Your task to perform on an android device: change timer sound Image 0: 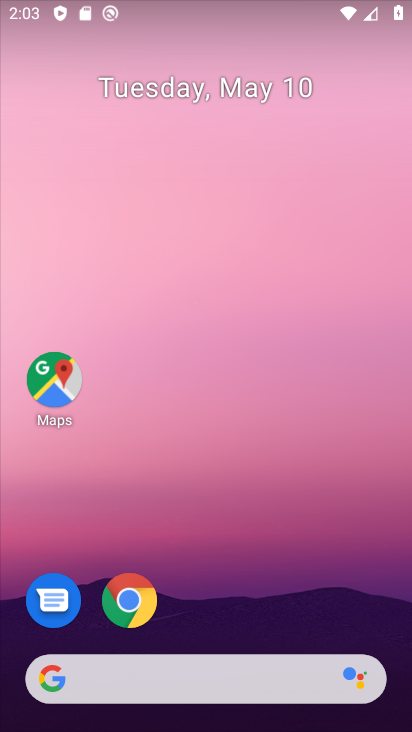
Step 0: click (226, 169)
Your task to perform on an android device: change timer sound Image 1: 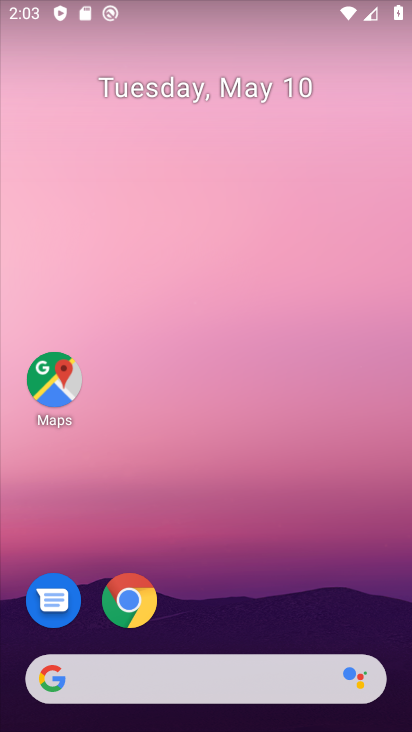
Step 1: drag from (241, 571) to (189, 114)
Your task to perform on an android device: change timer sound Image 2: 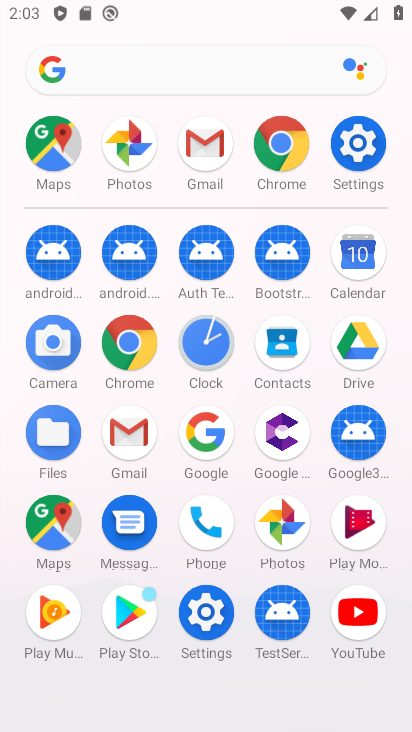
Step 2: click (364, 149)
Your task to perform on an android device: change timer sound Image 3: 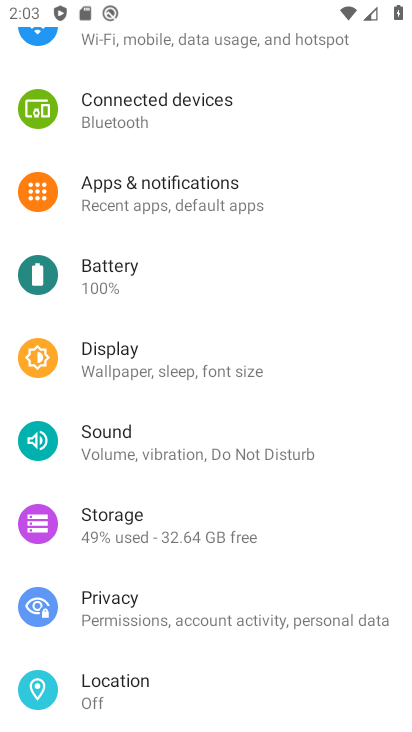
Step 3: press home button
Your task to perform on an android device: change timer sound Image 4: 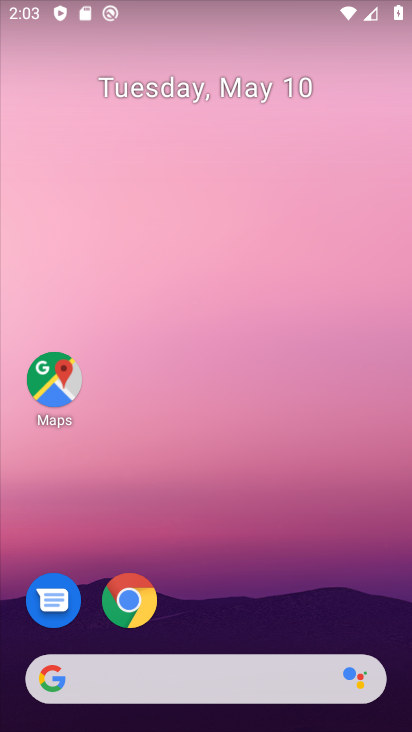
Step 4: drag from (252, 581) to (285, 253)
Your task to perform on an android device: change timer sound Image 5: 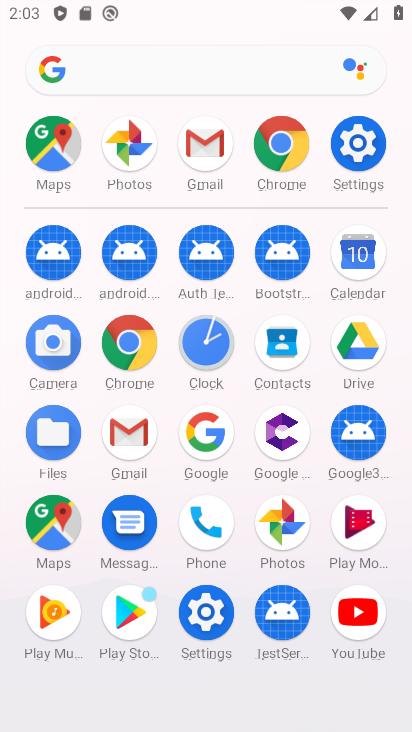
Step 5: click (205, 345)
Your task to perform on an android device: change timer sound Image 6: 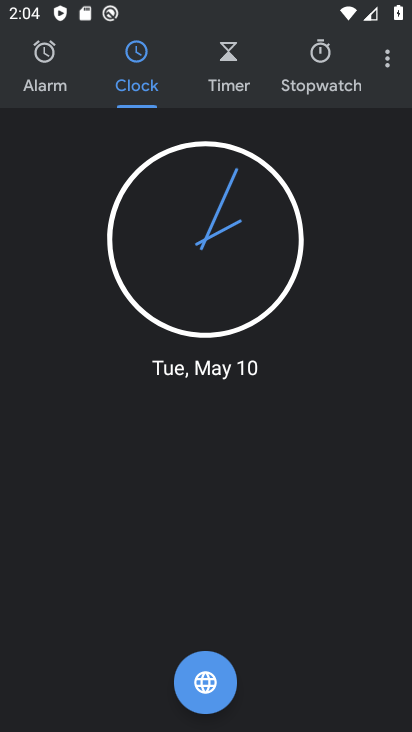
Step 6: click (381, 64)
Your task to perform on an android device: change timer sound Image 7: 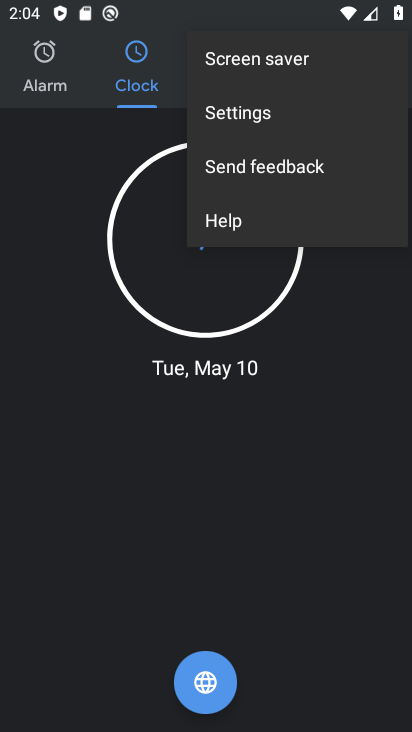
Step 7: click (262, 114)
Your task to perform on an android device: change timer sound Image 8: 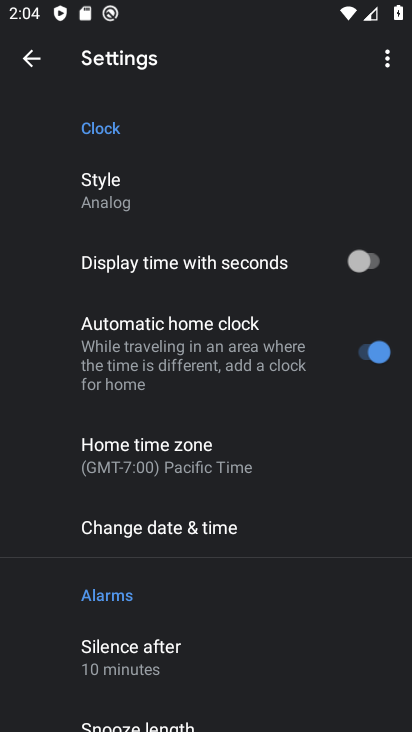
Step 8: drag from (249, 559) to (241, 224)
Your task to perform on an android device: change timer sound Image 9: 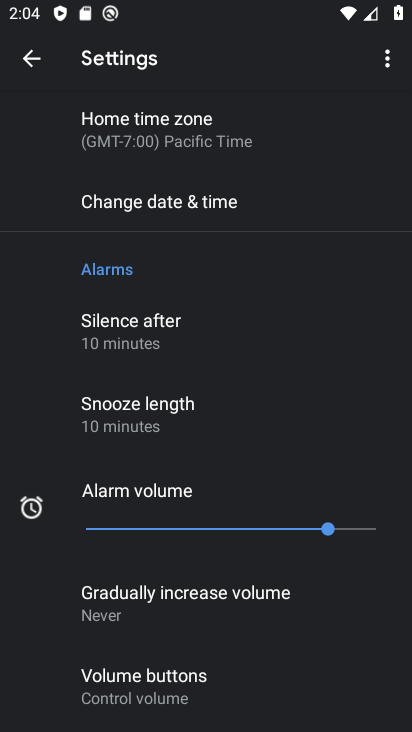
Step 9: drag from (187, 596) to (190, 345)
Your task to perform on an android device: change timer sound Image 10: 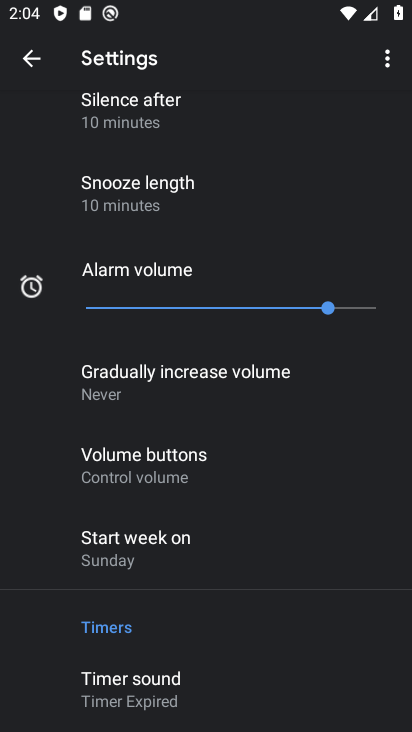
Step 10: drag from (180, 518) to (181, 326)
Your task to perform on an android device: change timer sound Image 11: 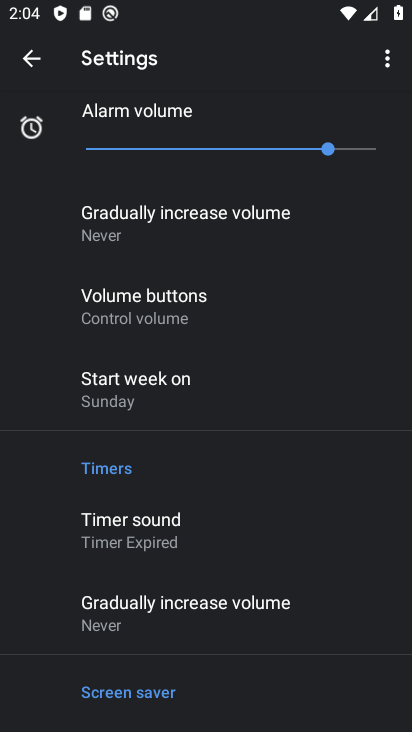
Step 11: click (141, 527)
Your task to perform on an android device: change timer sound Image 12: 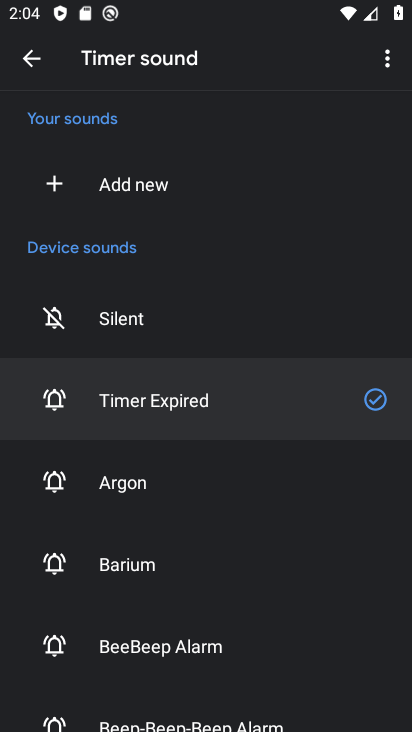
Step 12: click (143, 505)
Your task to perform on an android device: change timer sound Image 13: 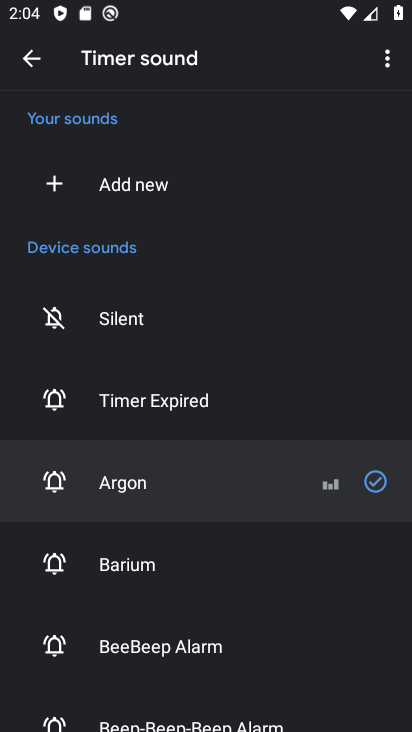
Step 13: task complete